Your task to perform on an android device: Go to privacy settings Image 0: 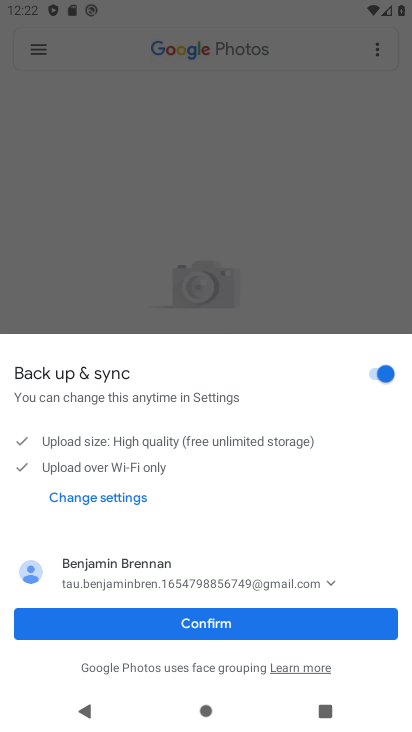
Step 0: press home button
Your task to perform on an android device: Go to privacy settings Image 1: 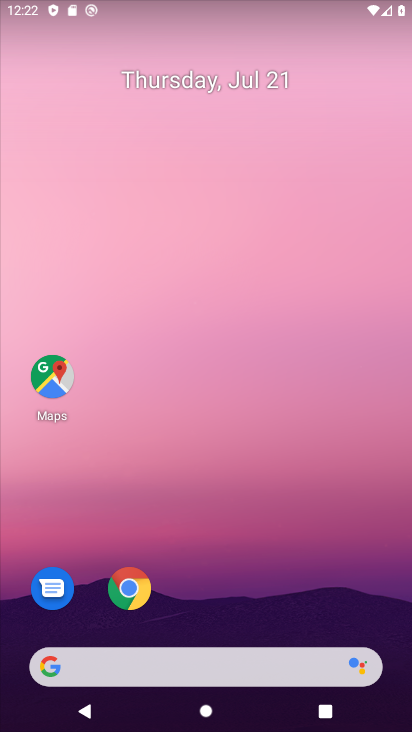
Step 1: drag from (283, 293) to (288, 171)
Your task to perform on an android device: Go to privacy settings Image 2: 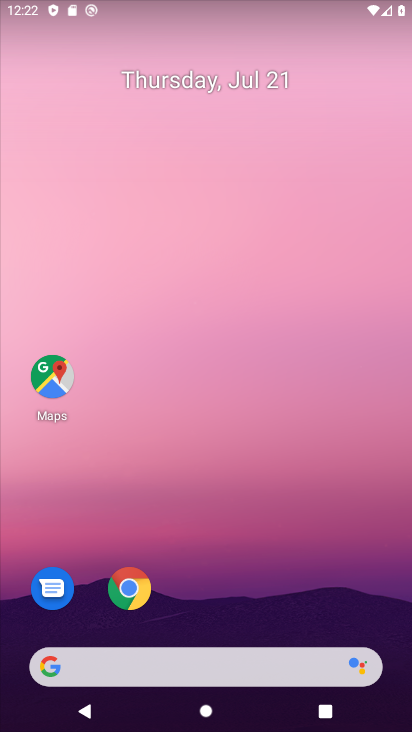
Step 2: drag from (236, 555) to (249, 192)
Your task to perform on an android device: Go to privacy settings Image 3: 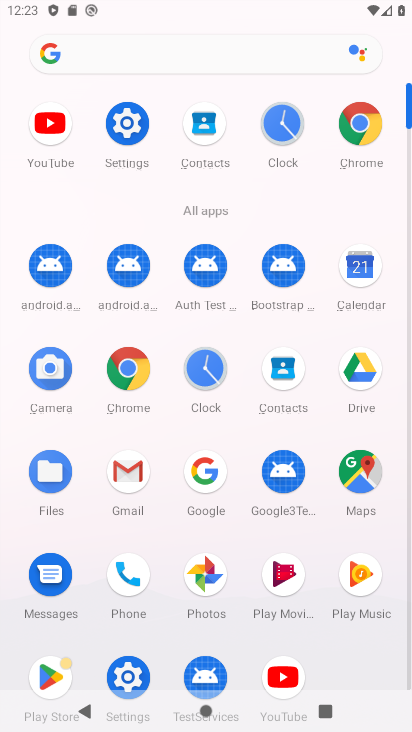
Step 3: click (121, 672)
Your task to perform on an android device: Go to privacy settings Image 4: 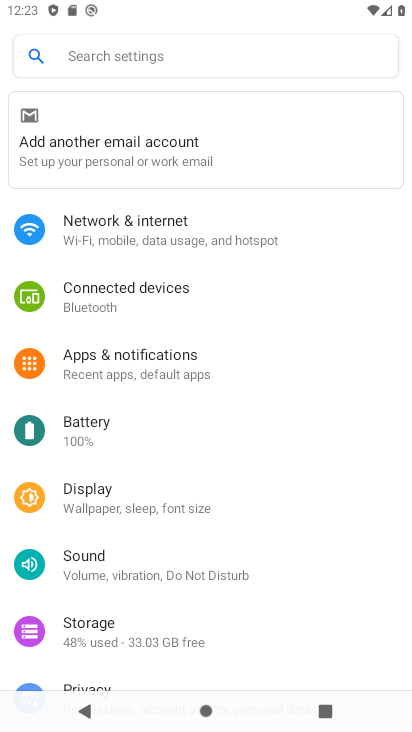
Step 4: click (113, 234)
Your task to perform on an android device: Go to privacy settings Image 5: 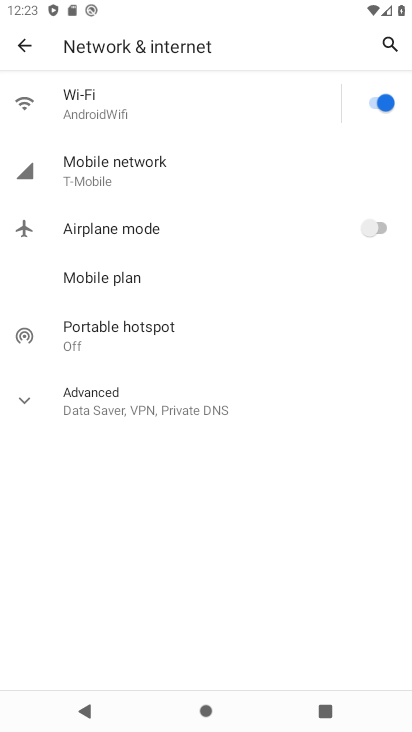
Step 5: task complete